Your task to perform on an android device: move a message to another label in the gmail app Image 0: 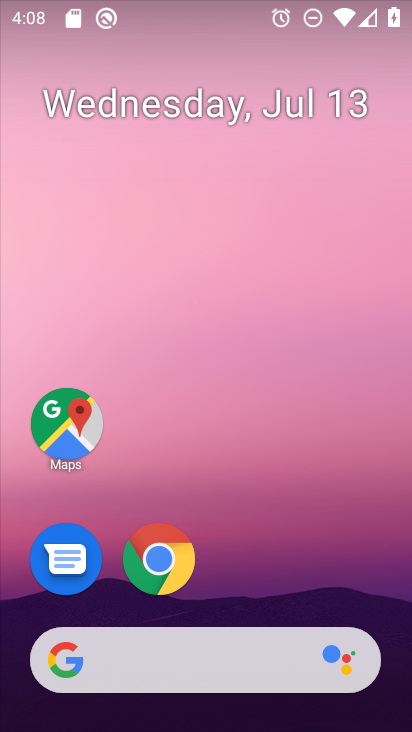
Step 0: drag from (355, 566) to (348, 180)
Your task to perform on an android device: move a message to another label in the gmail app Image 1: 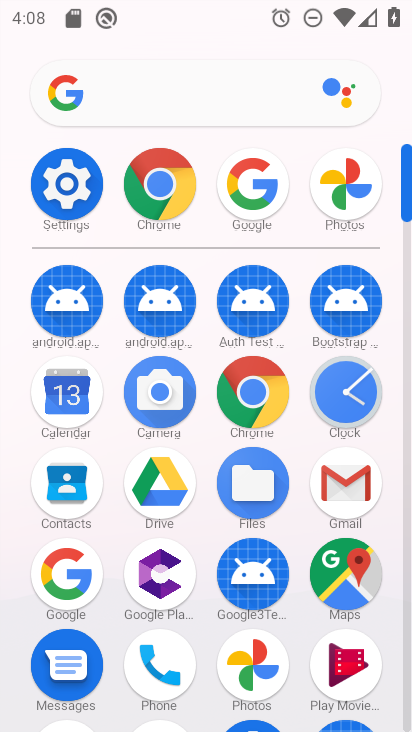
Step 1: click (346, 484)
Your task to perform on an android device: move a message to another label in the gmail app Image 2: 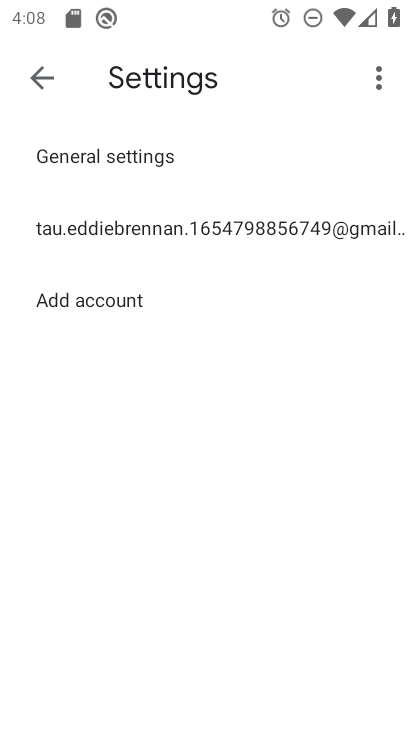
Step 2: press back button
Your task to perform on an android device: move a message to another label in the gmail app Image 3: 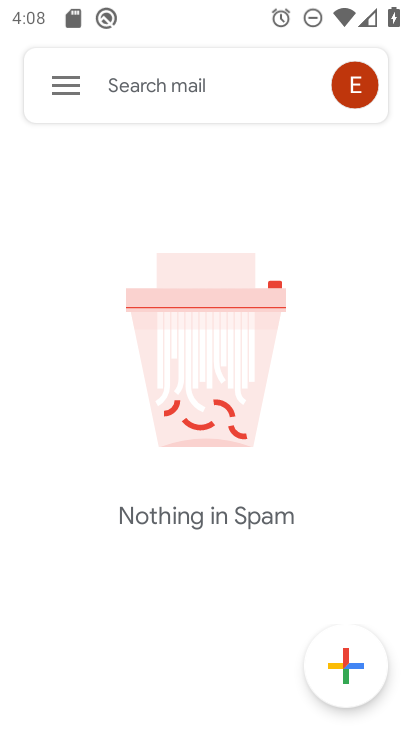
Step 3: click (70, 101)
Your task to perform on an android device: move a message to another label in the gmail app Image 4: 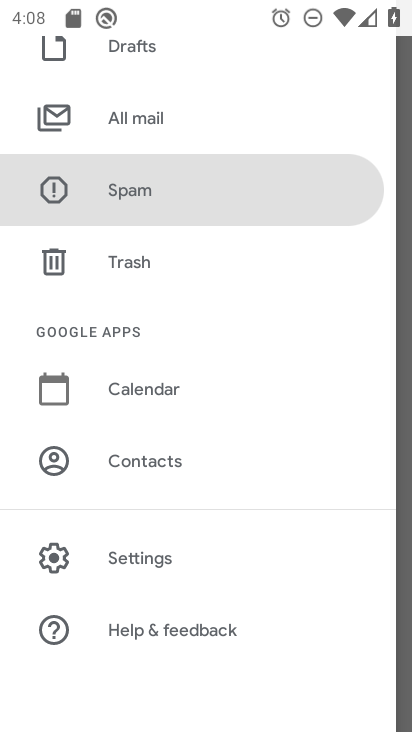
Step 4: drag from (240, 180) to (267, 310)
Your task to perform on an android device: move a message to another label in the gmail app Image 5: 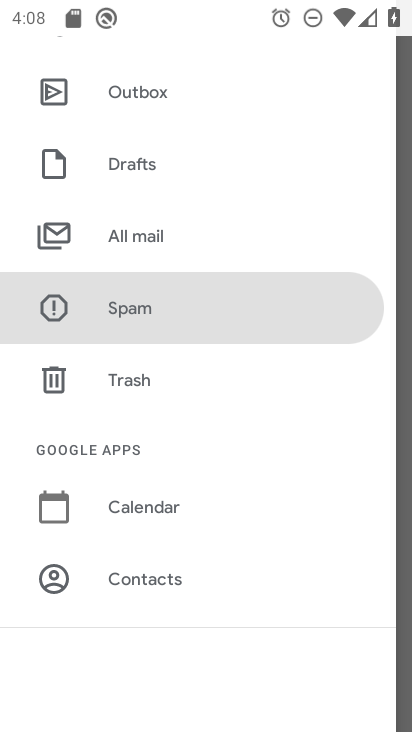
Step 5: drag from (262, 187) to (263, 311)
Your task to perform on an android device: move a message to another label in the gmail app Image 6: 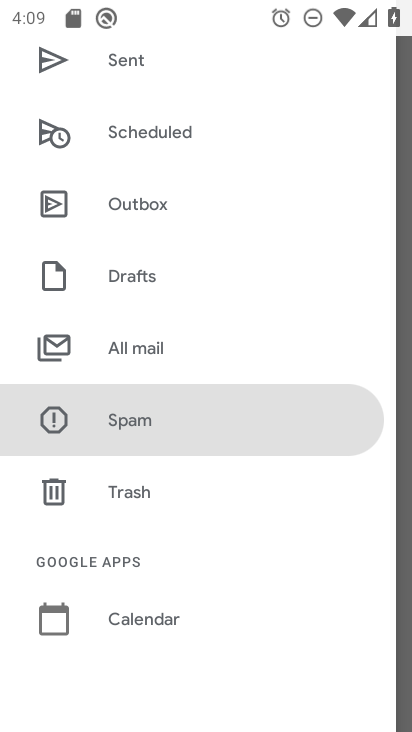
Step 6: drag from (262, 183) to (267, 308)
Your task to perform on an android device: move a message to another label in the gmail app Image 7: 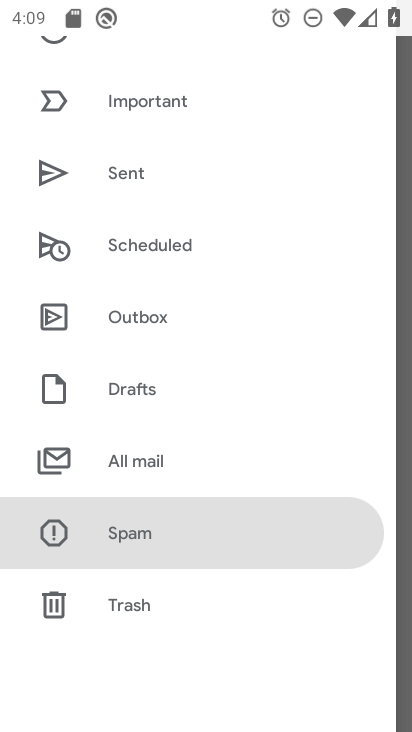
Step 7: drag from (266, 180) to (264, 335)
Your task to perform on an android device: move a message to another label in the gmail app Image 8: 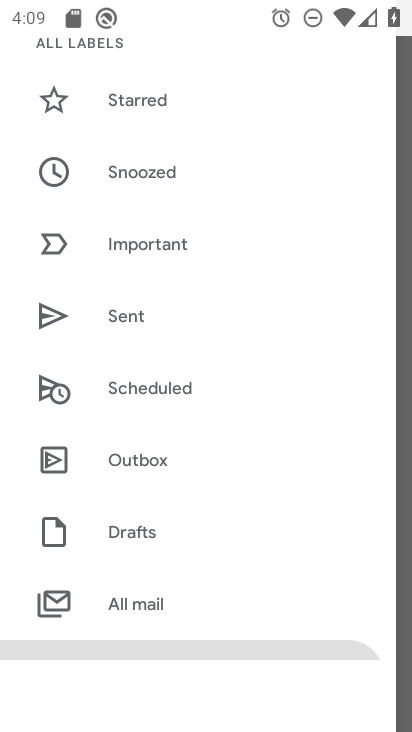
Step 8: drag from (254, 190) to (275, 308)
Your task to perform on an android device: move a message to another label in the gmail app Image 9: 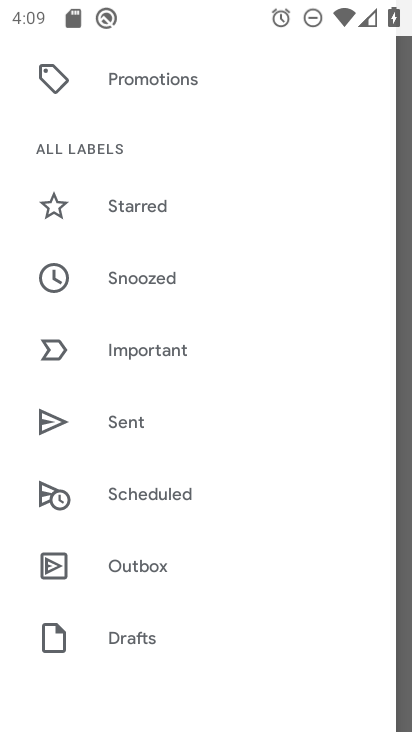
Step 9: drag from (291, 210) to (291, 363)
Your task to perform on an android device: move a message to another label in the gmail app Image 10: 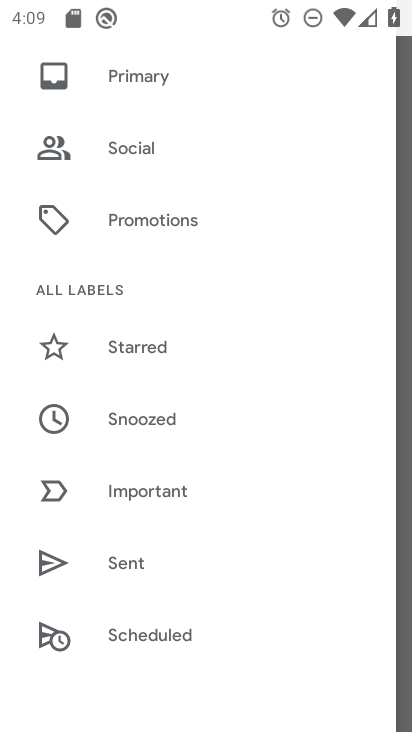
Step 10: drag from (292, 166) to (298, 342)
Your task to perform on an android device: move a message to another label in the gmail app Image 11: 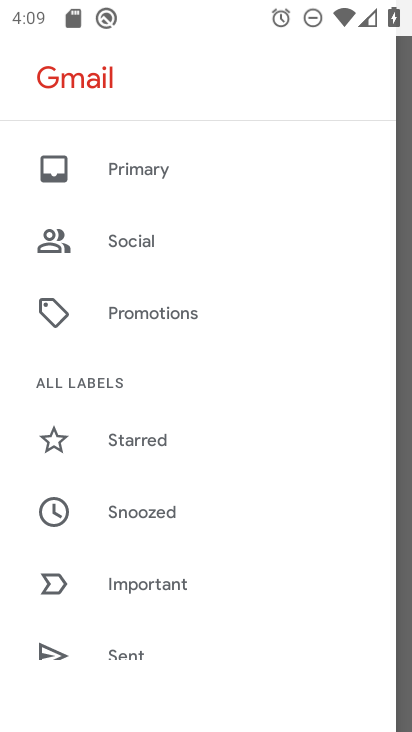
Step 11: click (178, 170)
Your task to perform on an android device: move a message to another label in the gmail app Image 12: 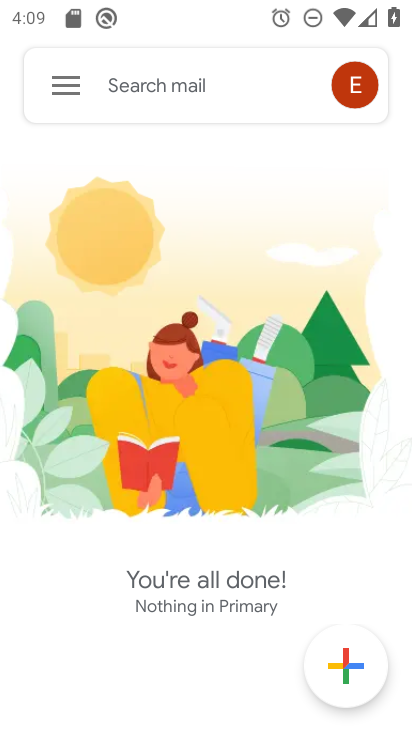
Step 12: task complete